Your task to perform on an android device: Open calendar and show me the second week of next month Image 0: 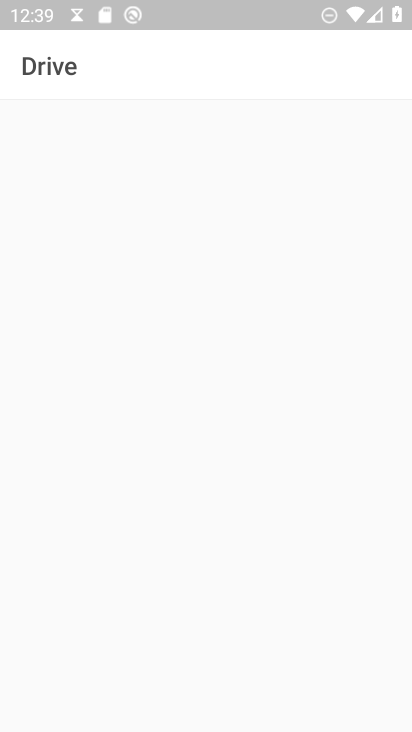
Step 0: press home button
Your task to perform on an android device: Open calendar and show me the second week of next month Image 1: 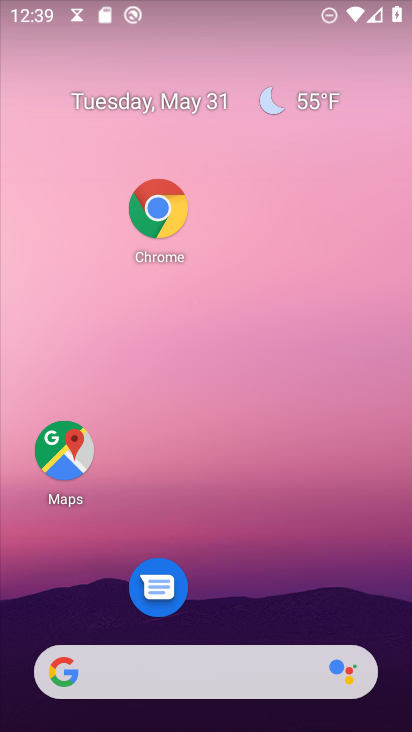
Step 1: drag from (218, 606) to (290, 118)
Your task to perform on an android device: Open calendar and show me the second week of next month Image 2: 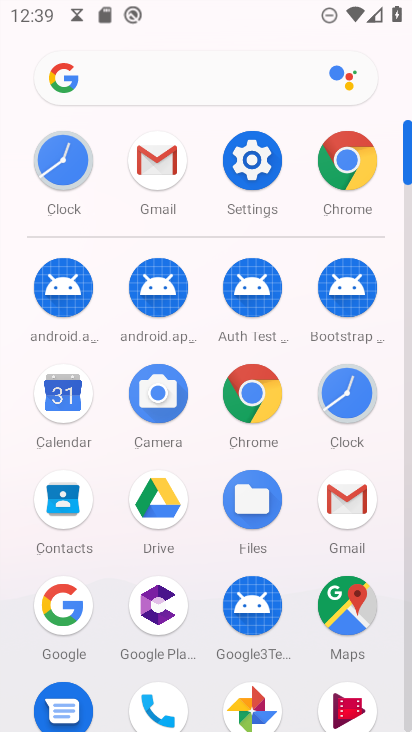
Step 2: click (74, 399)
Your task to perform on an android device: Open calendar and show me the second week of next month Image 3: 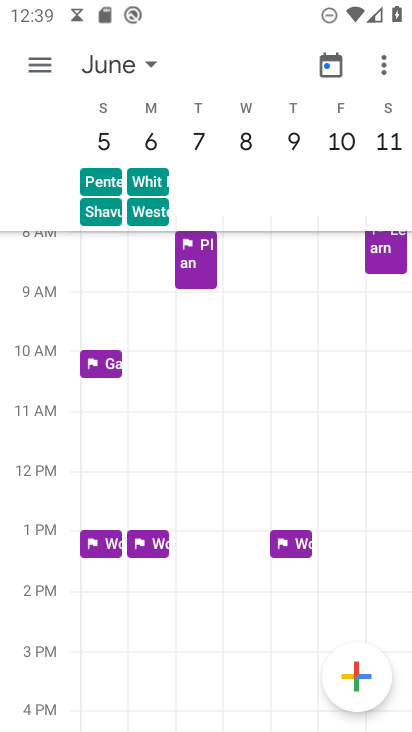
Step 3: task complete